Your task to perform on an android device: Turn on the flashlight Image 0: 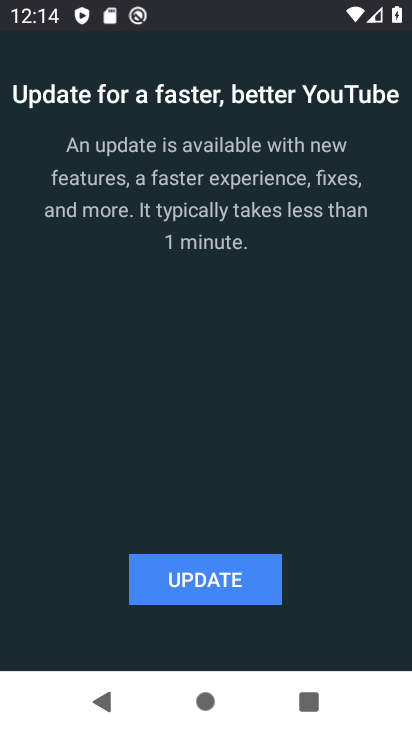
Step 0: press home button
Your task to perform on an android device: Turn on the flashlight Image 1: 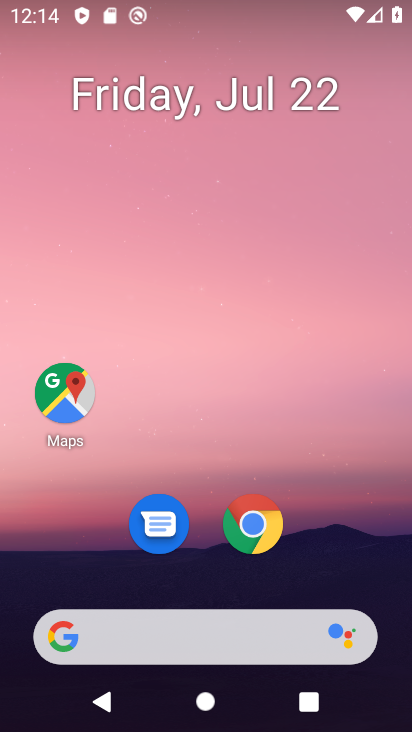
Step 1: task complete